Your task to perform on an android device: Open Google Image 0: 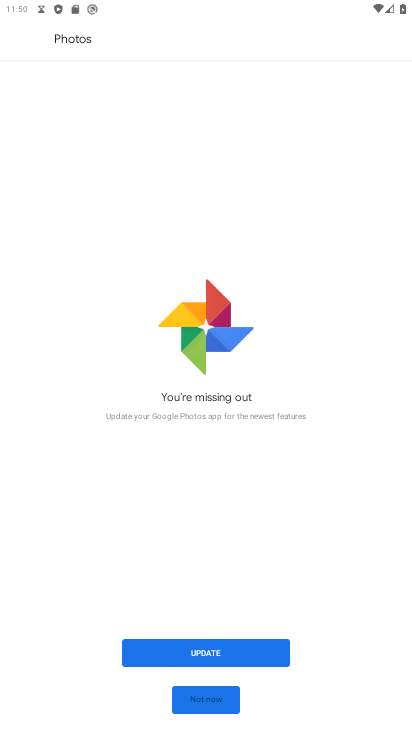
Step 0: press home button
Your task to perform on an android device: Open Google Image 1: 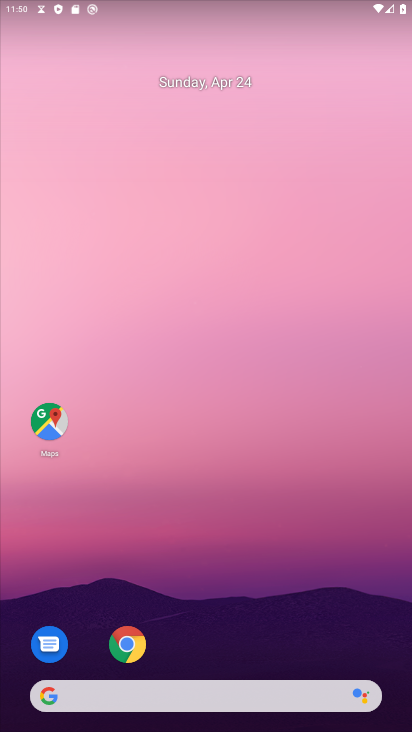
Step 1: drag from (296, 638) to (337, 49)
Your task to perform on an android device: Open Google Image 2: 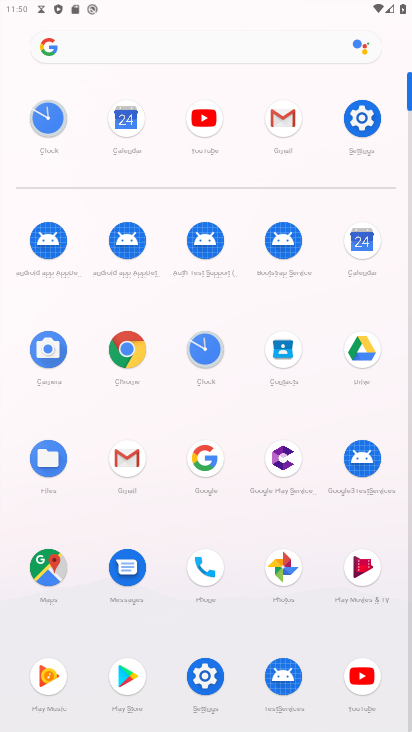
Step 2: click (201, 457)
Your task to perform on an android device: Open Google Image 3: 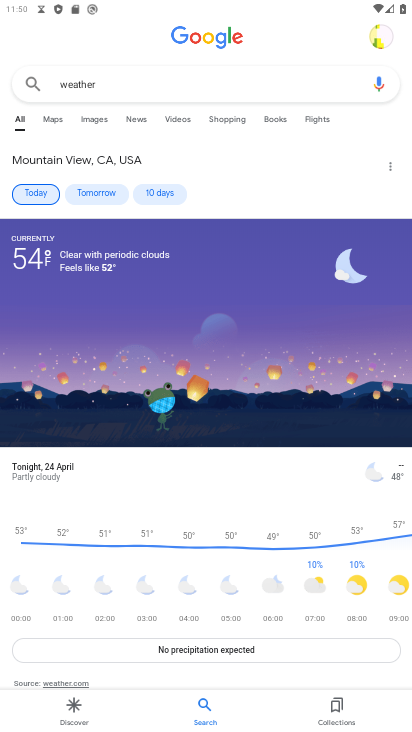
Step 3: task complete